Your task to perform on an android device: Open calendar and show me the second week of next month Image 0: 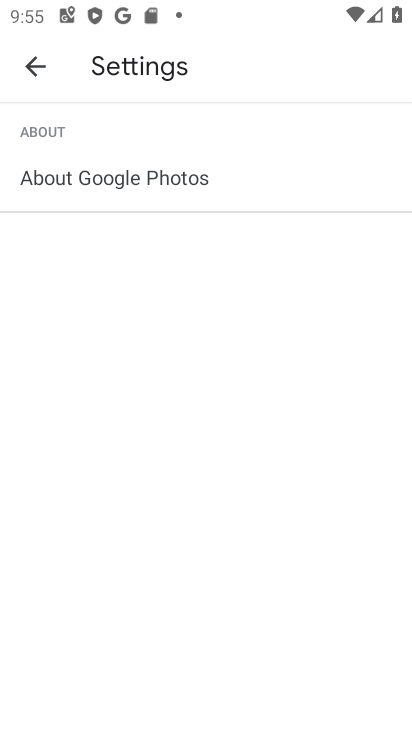
Step 0: press home button
Your task to perform on an android device: Open calendar and show me the second week of next month Image 1: 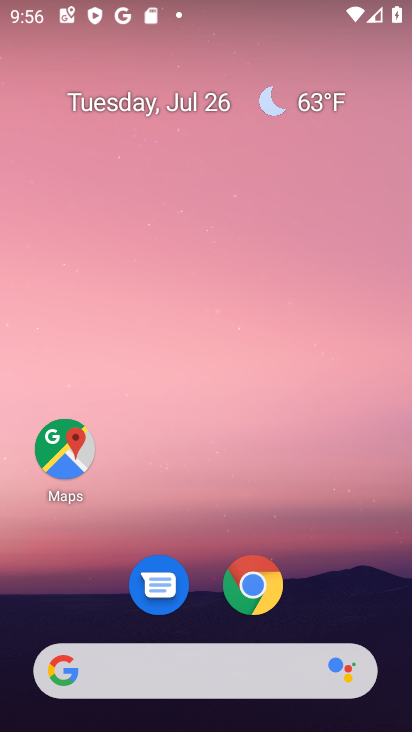
Step 1: click (372, 59)
Your task to perform on an android device: Open calendar and show me the second week of next month Image 2: 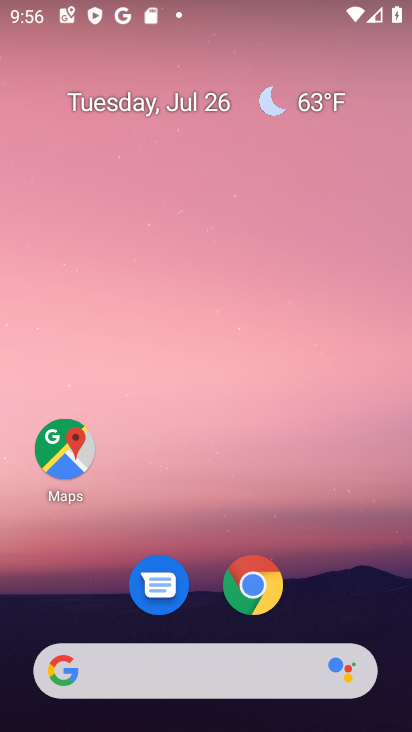
Step 2: drag from (319, 577) to (353, 32)
Your task to perform on an android device: Open calendar and show me the second week of next month Image 3: 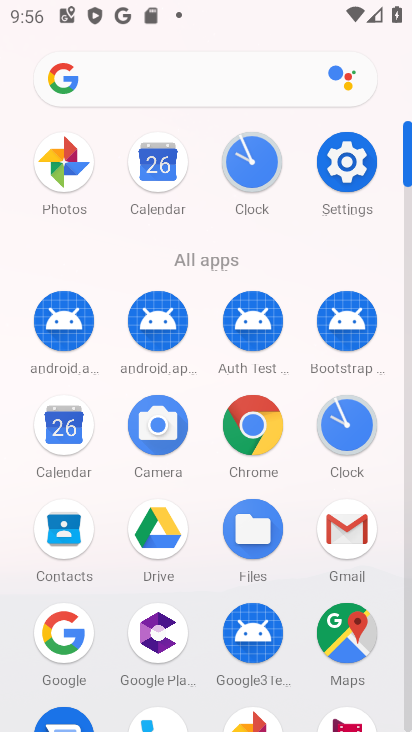
Step 3: click (70, 428)
Your task to perform on an android device: Open calendar and show me the second week of next month Image 4: 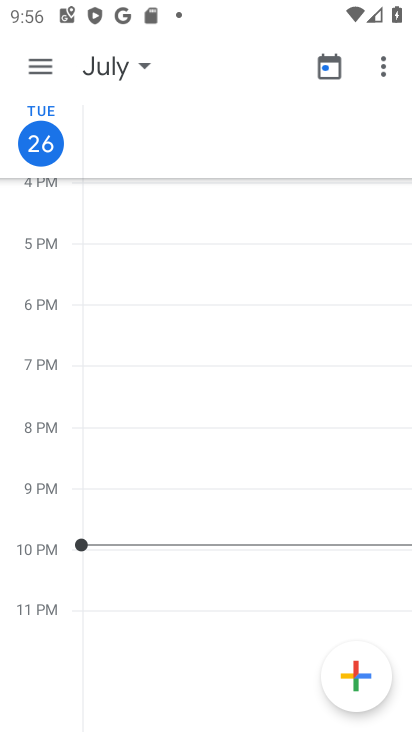
Step 4: click (35, 58)
Your task to perform on an android device: Open calendar and show me the second week of next month Image 5: 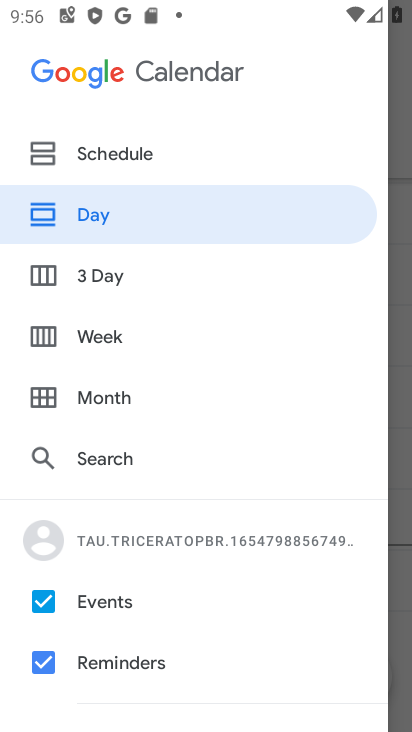
Step 5: click (38, 403)
Your task to perform on an android device: Open calendar and show me the second week of next month Image 6: 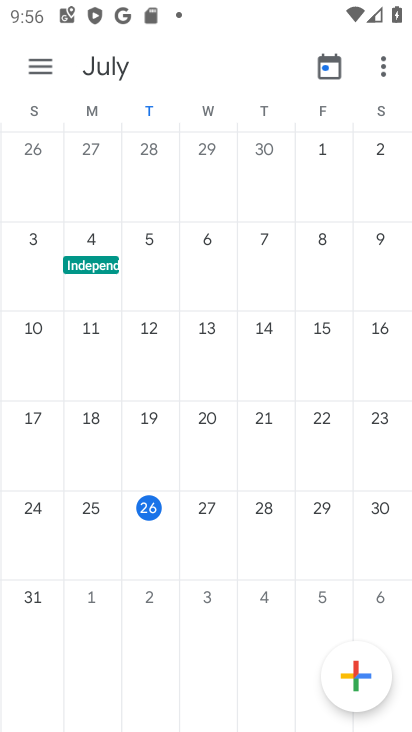
Step 6: drag from (376, 196) to (1, 361)
Your task to perform on an android device: Open calendar and show me the second week of next month Image 7: 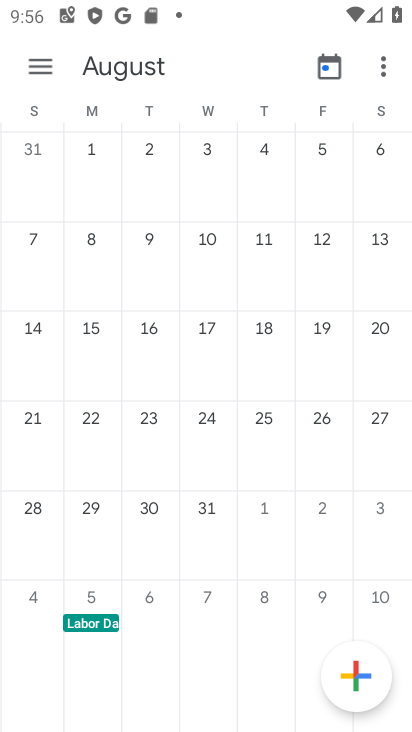
Step 7: click (32, 329)
Your task to perform on an android device: Open calendar and show me the second week of next month Image 8: 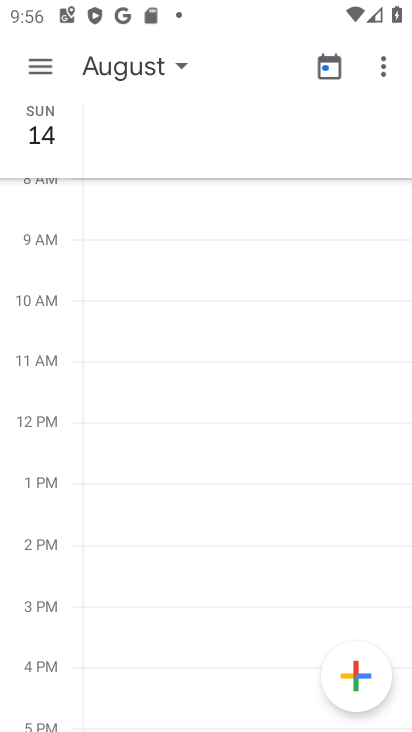
Step 8: click (40, 67)
Your task to perform on an android device: Open calendar and show me the second week of next month Image 9: 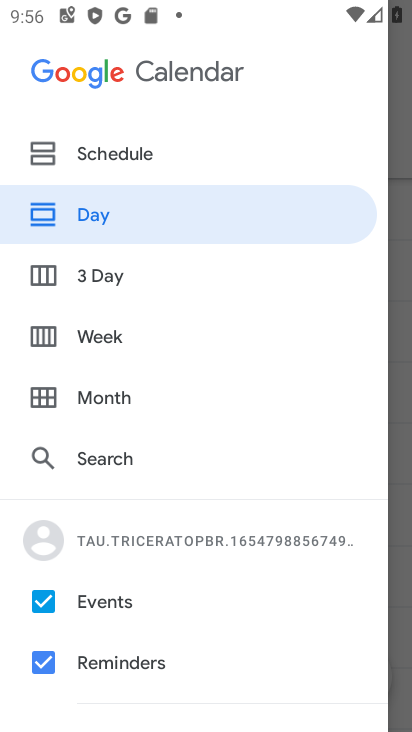
Step 9: click (43, 337)
Your task to perform on an android device: Open calendar and show me the second week of next month Image 10: 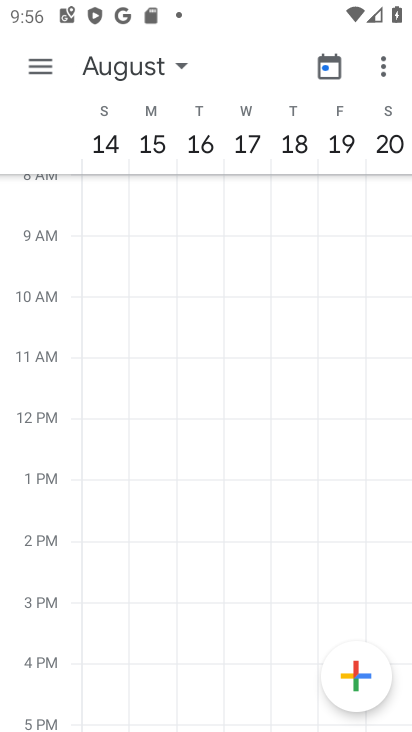
Step 10: task complete